Your task to perform on an android device: Open Youtube and go to the subscriptions tab Image 0: 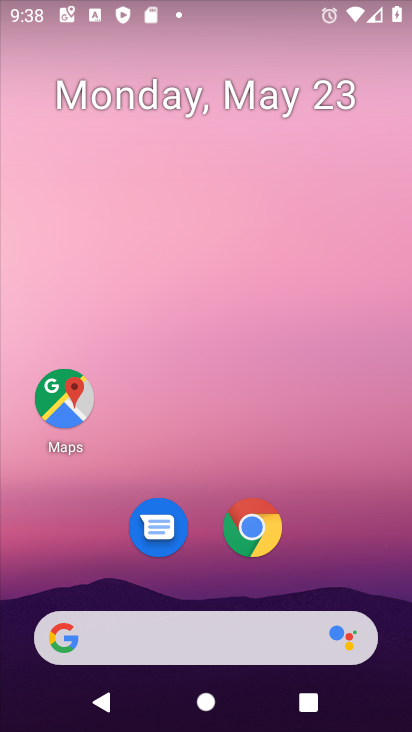
Step 0: drag from (322, 559) to (228, 32)
Your task to perform on an android device: Open Youtube and go to the subscriptions tab Image 1: 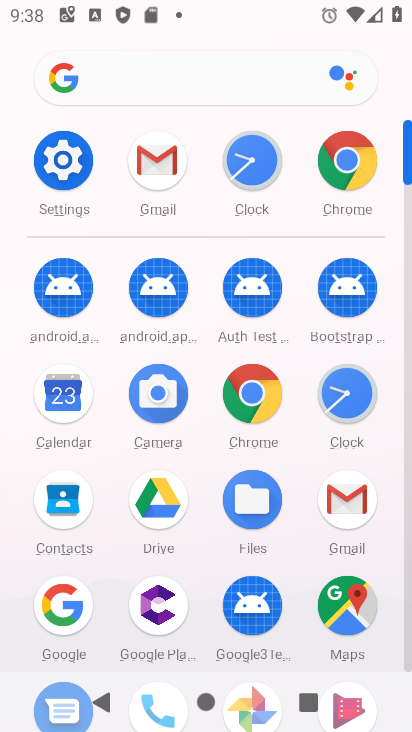
Step 1: drag from (8, 614) to (25, 234)
Your task to perform on an android device: Open Youtube and go to the subscriptions tab Image 2: 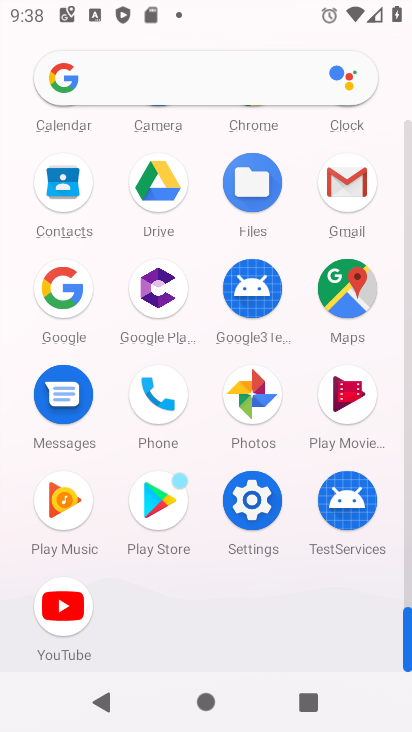
Step 2: click (60, 605)
Your task to perform on an android device: Open Youtube and go to the subscriptions tab Image 3: 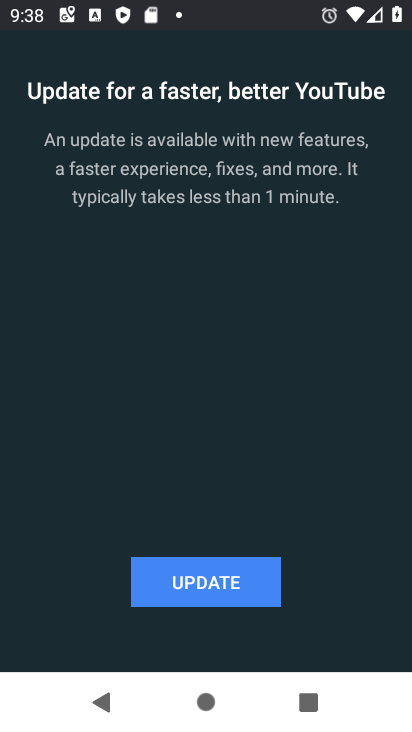
Step 3: click (200, 579)
Your task to perform on an android device: Open Youtube and go to the subscriptions tab Image 4: 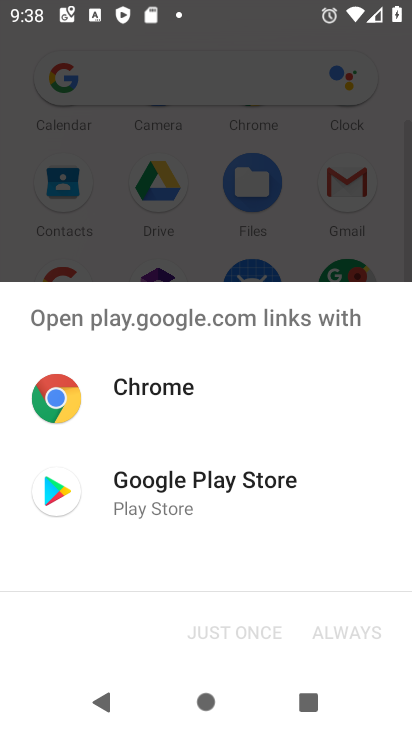
Step 4: click (195, 486)
Your task to perform on an android device: Open Youtube and go to the subscriptions tab Image 5: 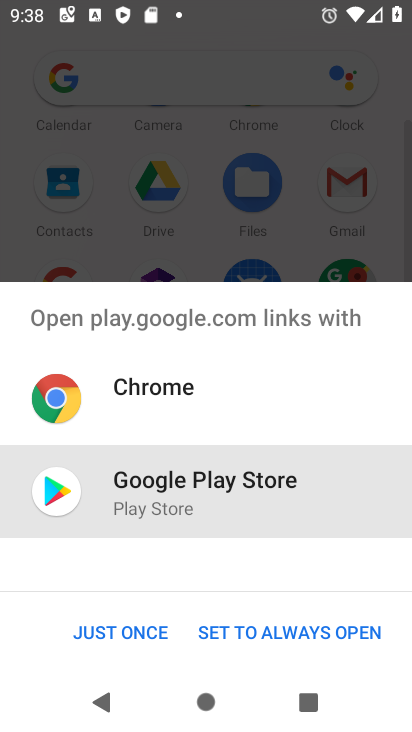
Step 5: click (139, 628)
Your task to perform on an android device: Open Youtube and go to the subscriptions tab Image 6: 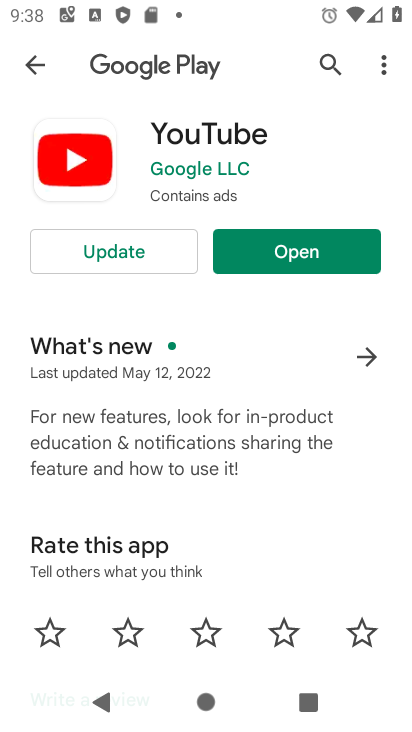
Step 6: click (156, 256)
Your task to perform on an android device: Open Youtube and go to the subscriptions tab Image 7: 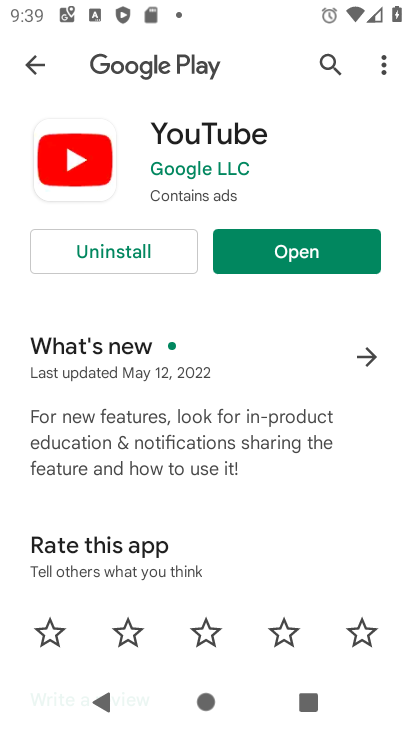
Step 7: click (260, 255)
Your task to perform on an android device: Open Youtube and go to the subscriptions tab Image 8: 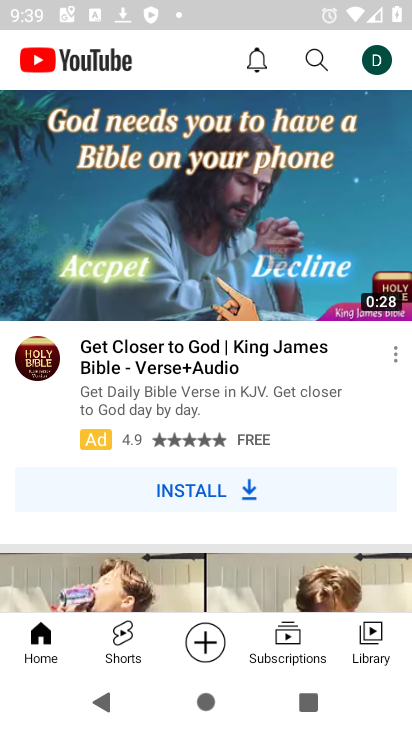
Step 8: click (284, 624)
Your task to perform on an android device: Open Youtube and go to the subscriptions tab Image 9: 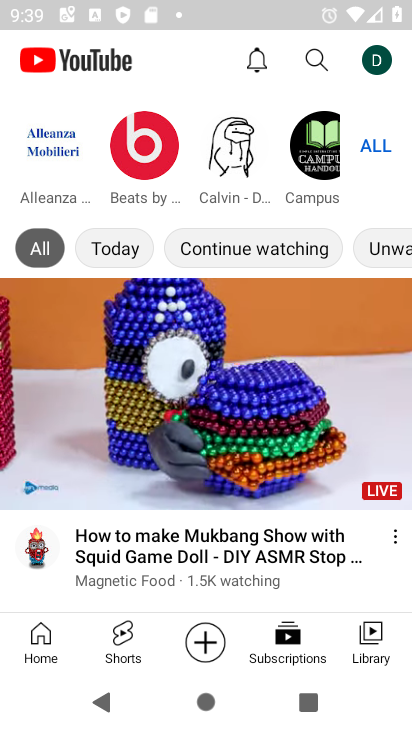
Step 9: task complete